Your task to perform on an android device: Go to internet settings Image 0: 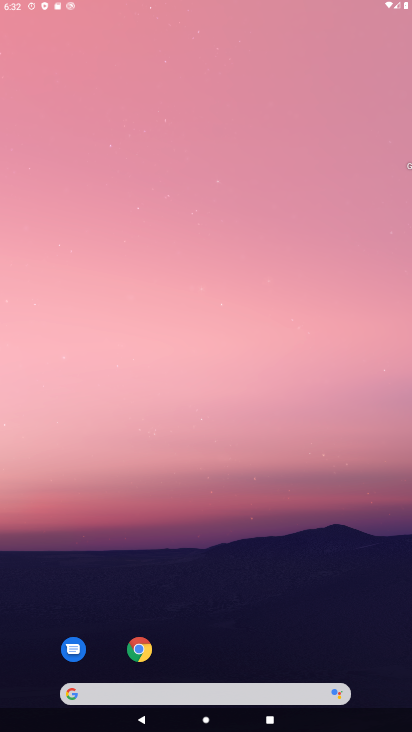
Step 0: click (228, 25)
Your task to perform on an android device: Go to internet settings Image 1: 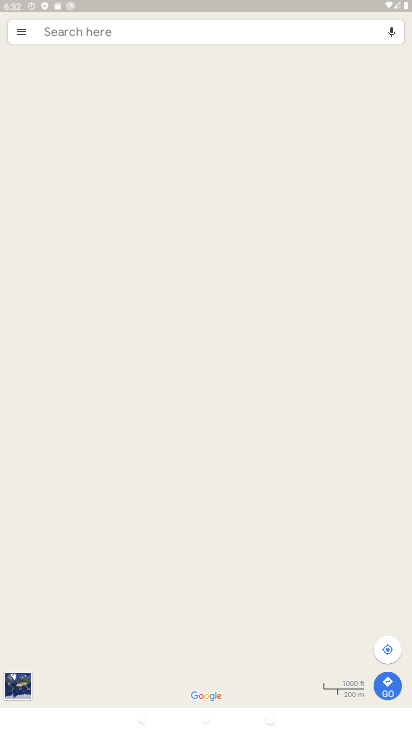
Step 1: press home button
Your task to perform on an android device: Go to internet settings Image 2: 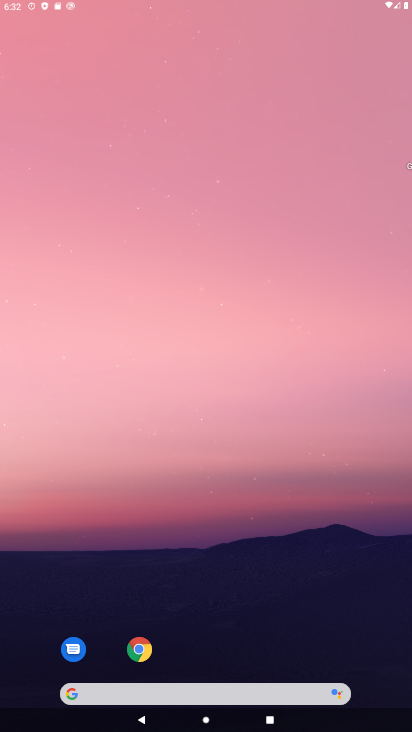
Step 2: drag from (334, 620) to (250, 73)
Your task to perform on an android device: Go to internet settings Image 3: 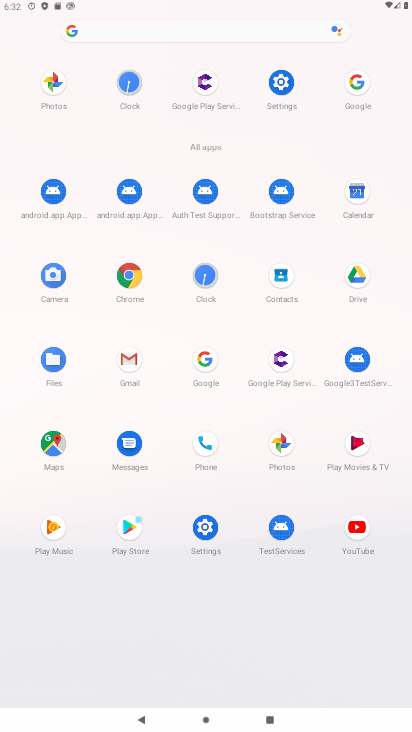
Step 3: click (276, 87)
Your task to perform on an android device: Go to internet settings Image 4: 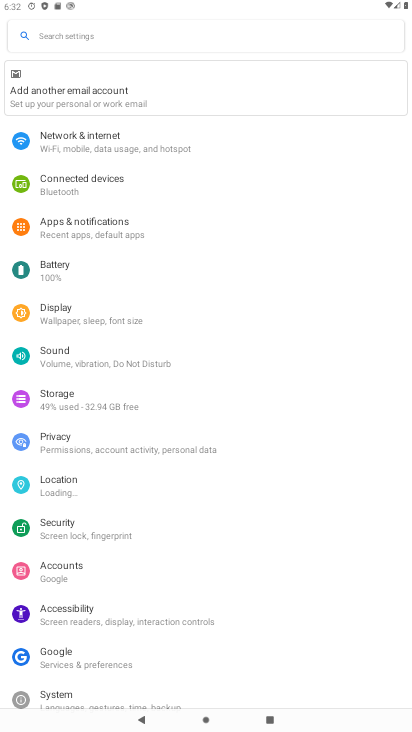
Step 4: click (137, 136)
Your task to perform on an android device: Go to internet settings Image 5: 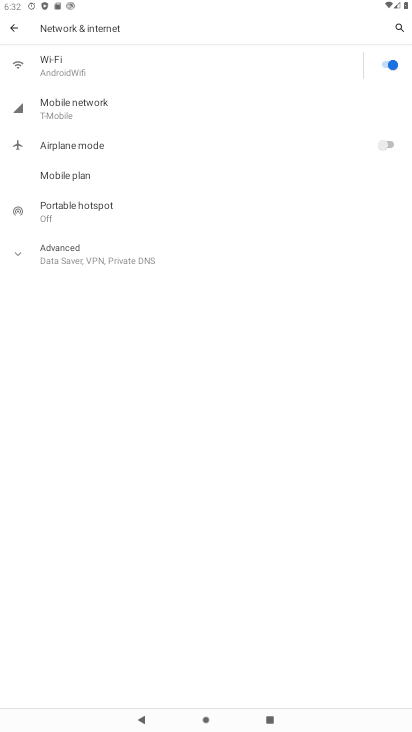
Step 5: task complete